Your task to perform on an android device: turn off javascript in the chrome app Image 0: 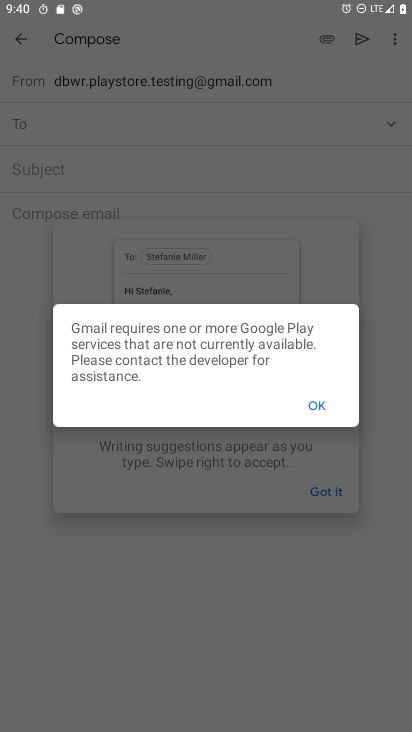
Step 0: press home button
Your task to perform on an android device: turn off javascript in the chrome app Image 1: 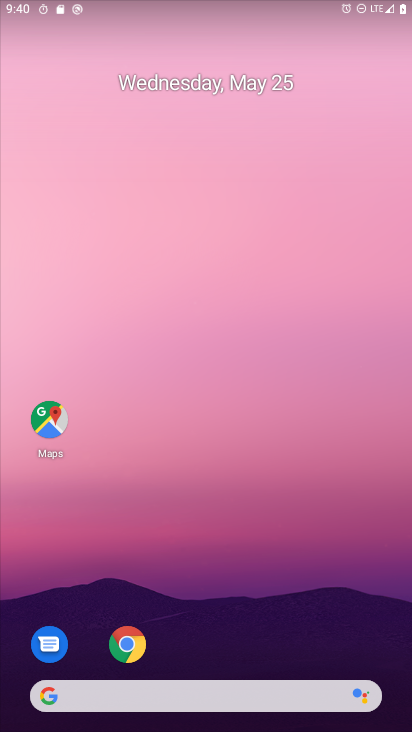
Step 1: drag from (344, 627) to (283, 220)
Your task to perform on an android device: turn off javascript in the chrome app Image 2: 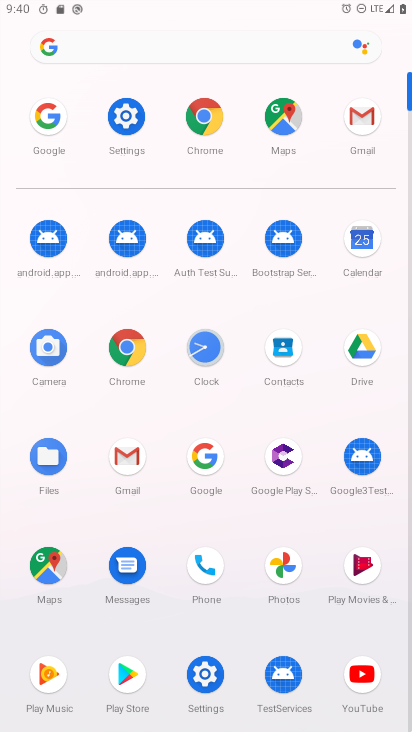
Step 2: click (208, 108)
Your task to perform on an android device: turn off javascript in the chrome app Image 3: 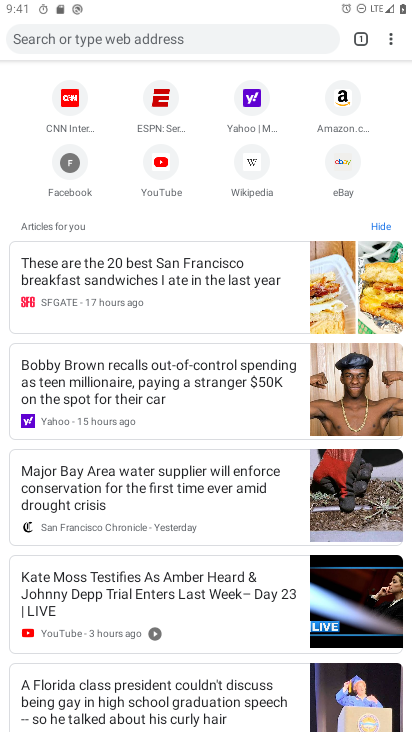
Step 3: click (386, 36)
Your task to perform on an android device: turn off javascript in the chrome app Image 4: 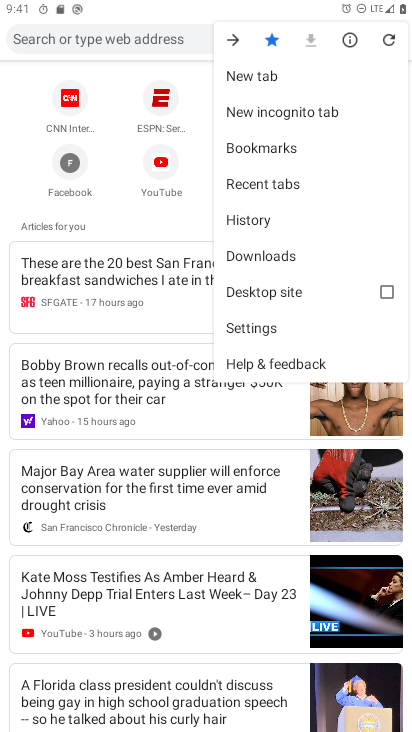
Step 4: click (254, 329)
Your task to perform on an android device: turn off javascript in the chrome app Image 5: 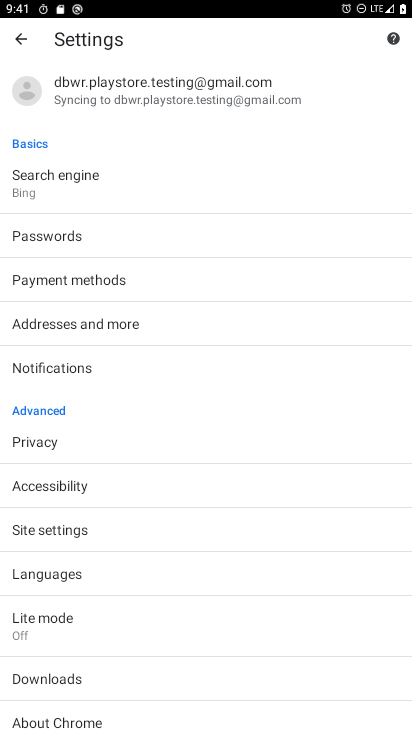
Step 5: click (109, 531)
Your task to perform on an android device: turn off javascript in the chrome app Image 6: 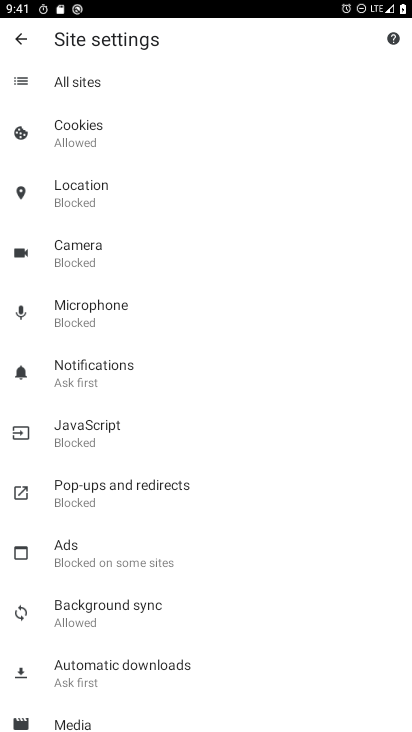
Step 6: click (120, 438)
Your task to perform on an android device: turn off javascript in the chrome app Image 7: 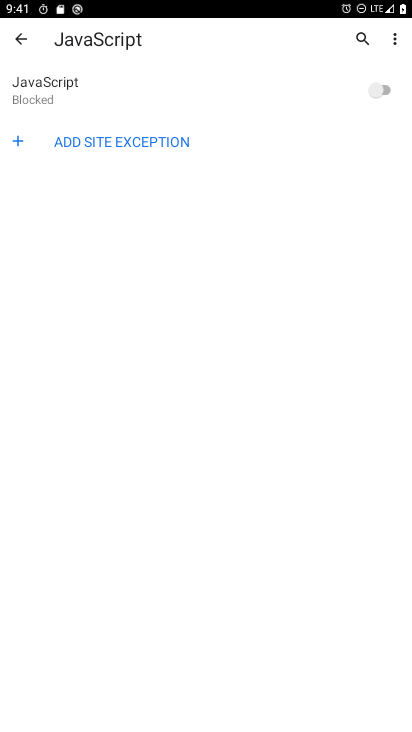
Step 7: task complete